Your task to perform on an android device: uninstall "Google Translate" Image 0: 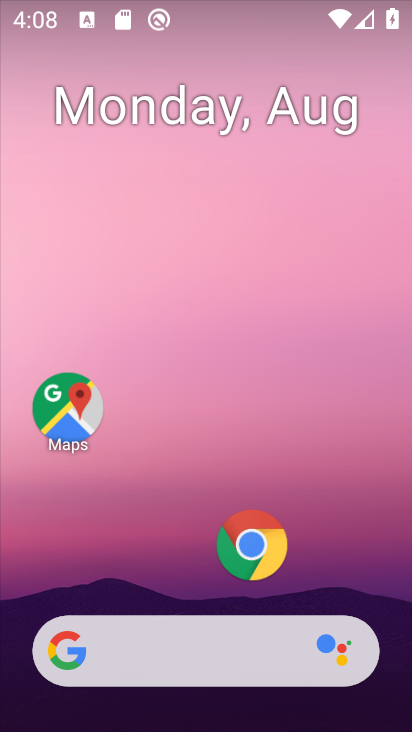
Step 0: drag from (132, 591) to (216, 91)
Your task to perform on an android device: uninstall "Google Translate" Image 1: 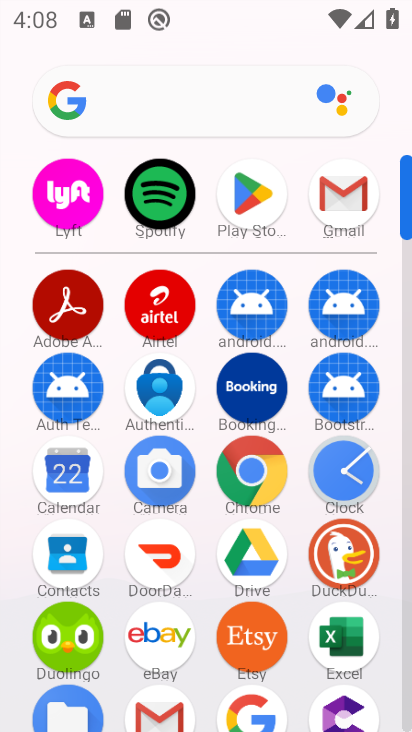
Step 1: click (250, 185)
Your task to perform on an android device: uninstall "Google Translate" Image 2: 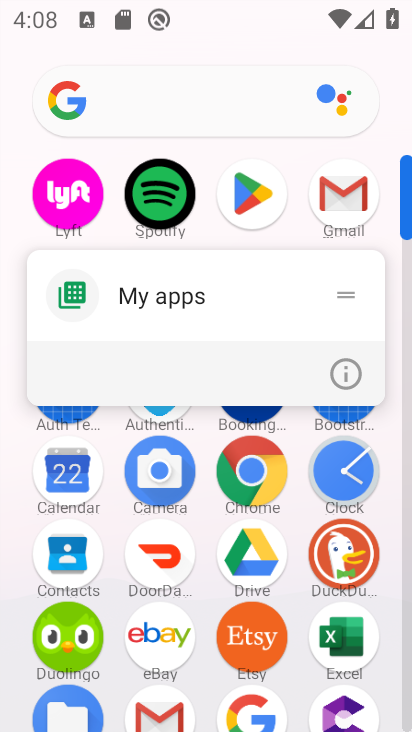
Step 2: click (249, 197)
Your task to perform on an android device: uninstall "Google Translate" Image 3: 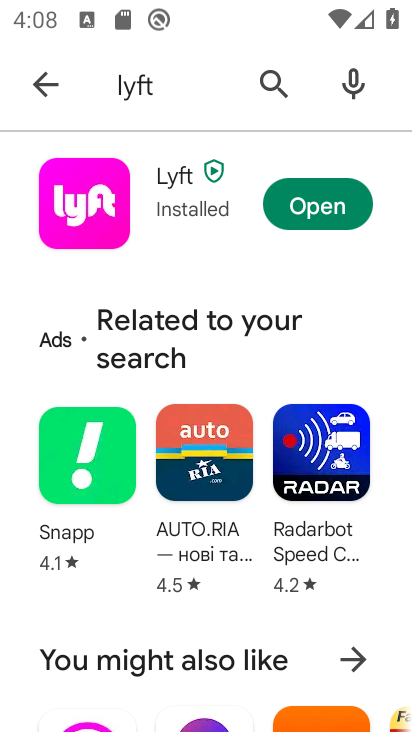
Step 3: click (265, 98)
Your task to perform on an android device: uninstall "Google Translate" Image 4: 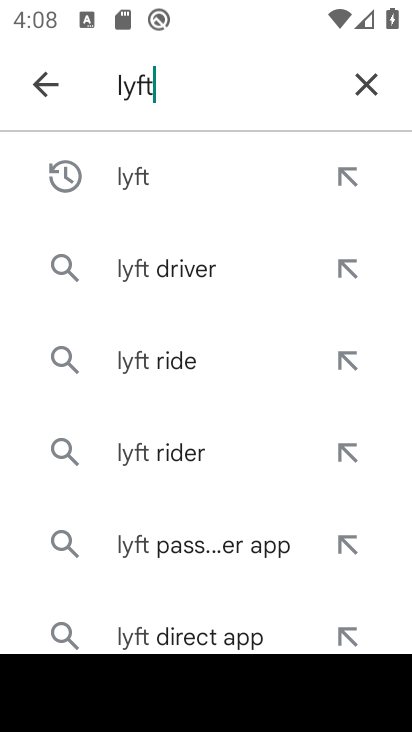
Step 4: click (375, 79)
Your task to perform on an android device: uninstall "Google Translate" Image 5: 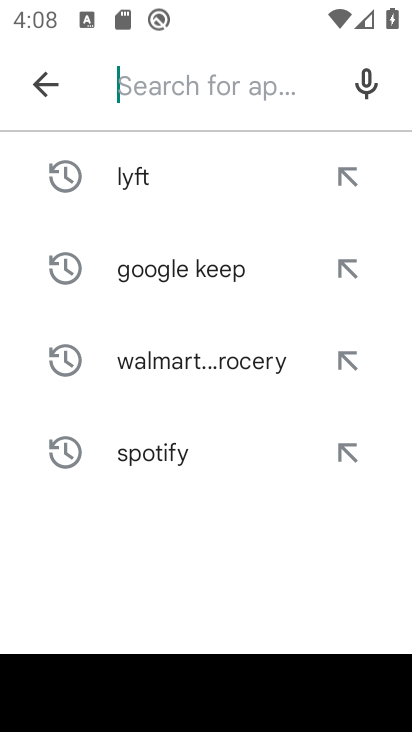
Step 5: click (155, 101)
Your task to perform on an android device: uninstall "Google Translate" Image 6: 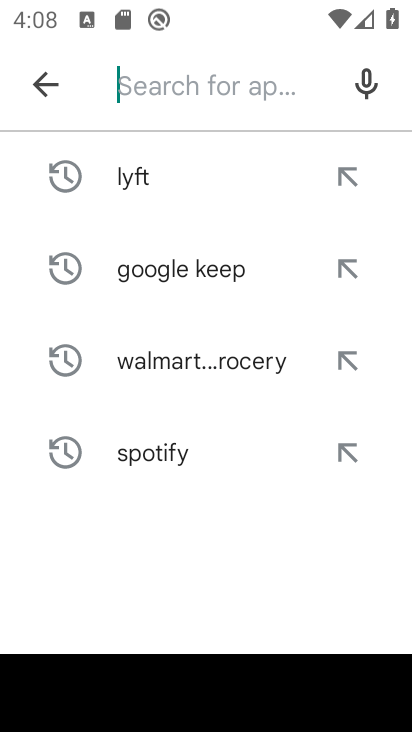
Step 6: type "google "
Your task to perform on an android device: uninstall "Google Translate" Image 7: 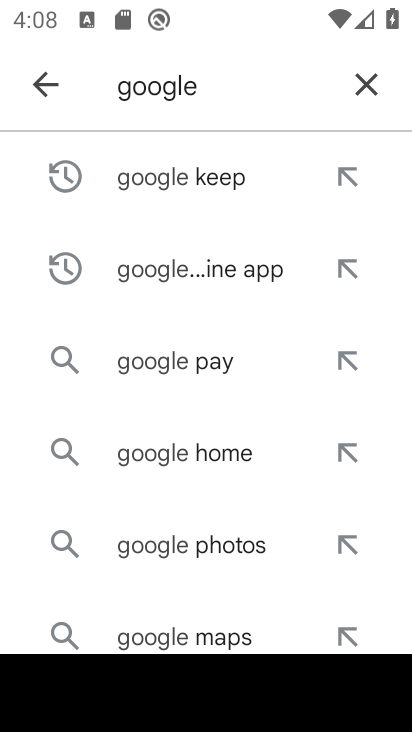
Step 7: type "translate"
Your task to perform on an android device: uninstall "Google Translate" Image 8: 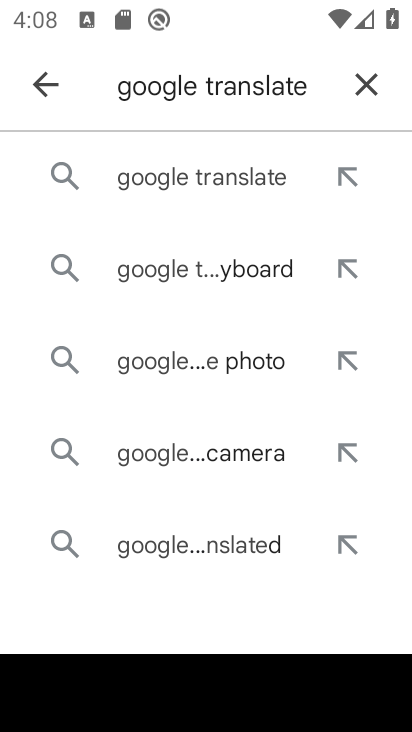
Step 8: click (176, 187)
Your task to perform on an android device: uninstall "Google Translate" Image 9: 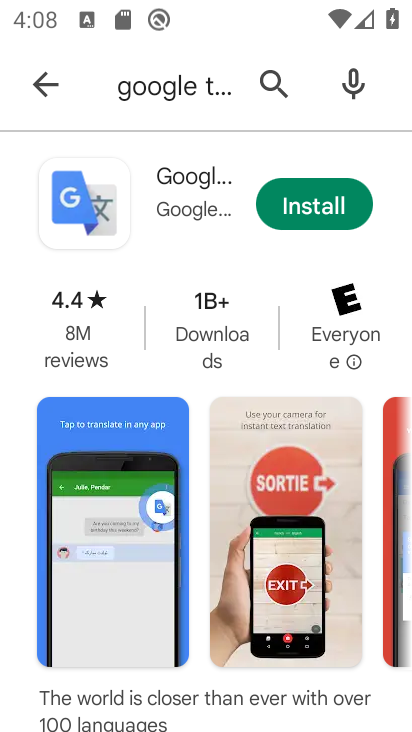
Step 9: click (182, 198)
Your task to perform on an android device: uninstall "Google Translate" Image 10: 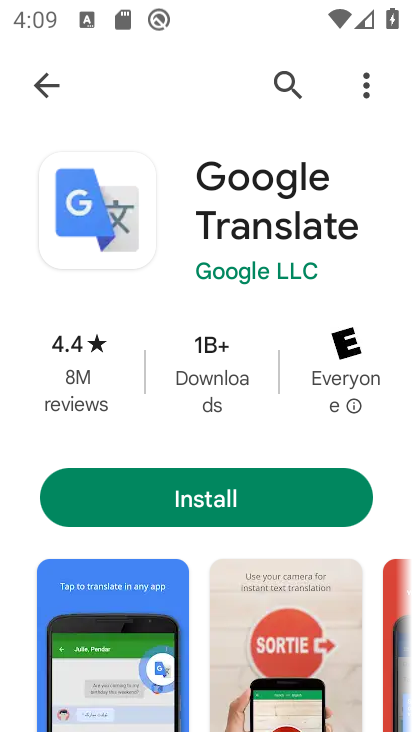
Step 10: task complete